Your task to perform on an android device: What's on my calendar tomorrow? Image 0: 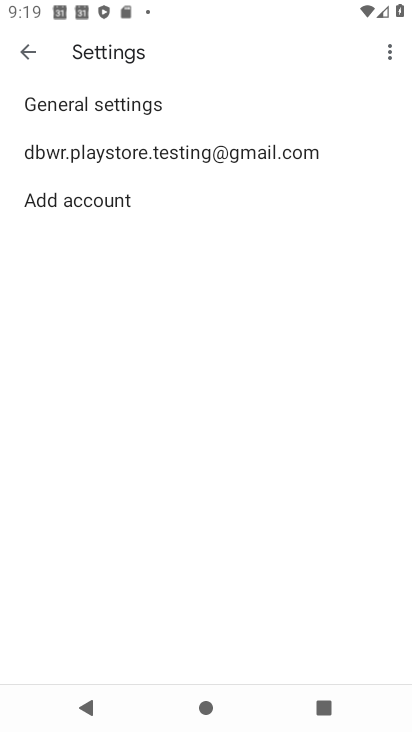
Step 0: press home button
Your task to perform on an android device: What's on my calendar tomorrow? Image 1: 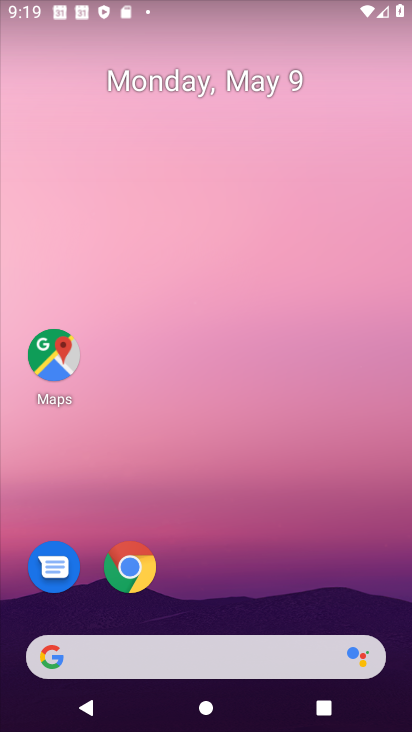
Step 1: drag from (212, 660) to (160, 54)
Your task to perform on an android device: What's on my calendar tomorrow? Image 2: 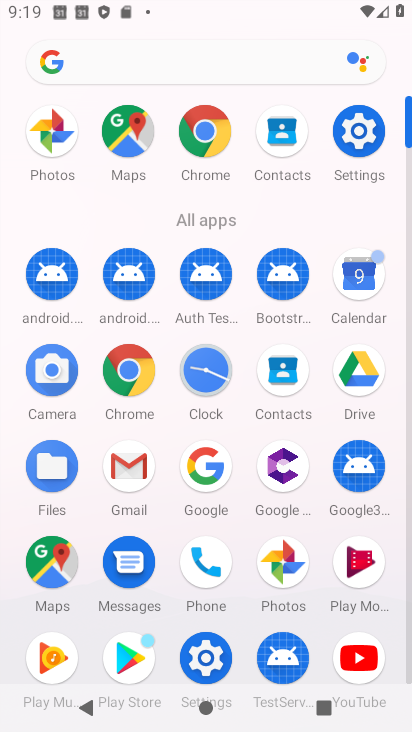
Step 2: click (368, 291)
Your task to perform on an android device: What's on my calendar tomorrow? Image 3: 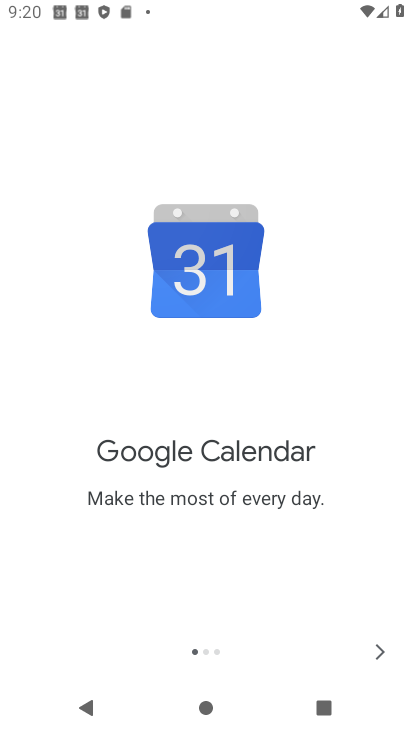
Step 3: click (387, 659)
Your task to perform on an android device: What's on my calendar tomorrow? Image 4: 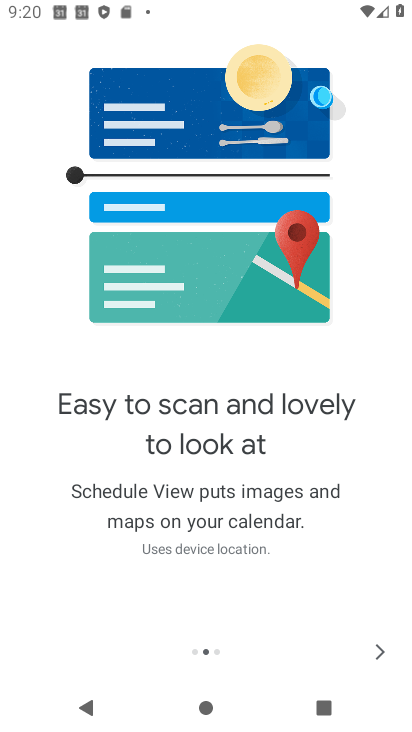
Step 4: click (374, 662)
Your task to perform on an android device: What's on my calendar tomorrow? Image 5: 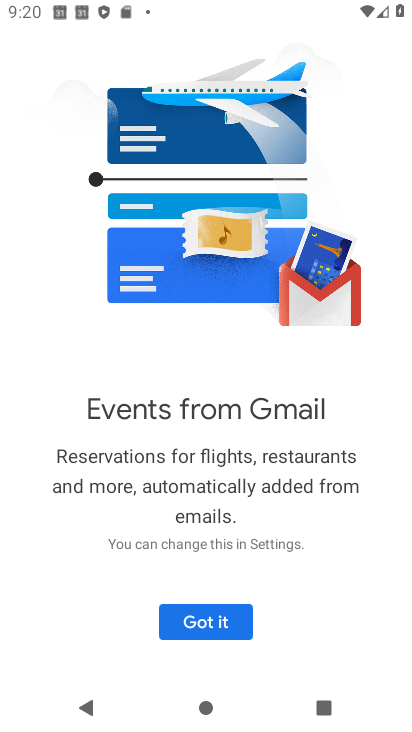
Step 5: click (225, 615)
Your task to perform on an android device: What's on my calendar tomorrow? Image 6: 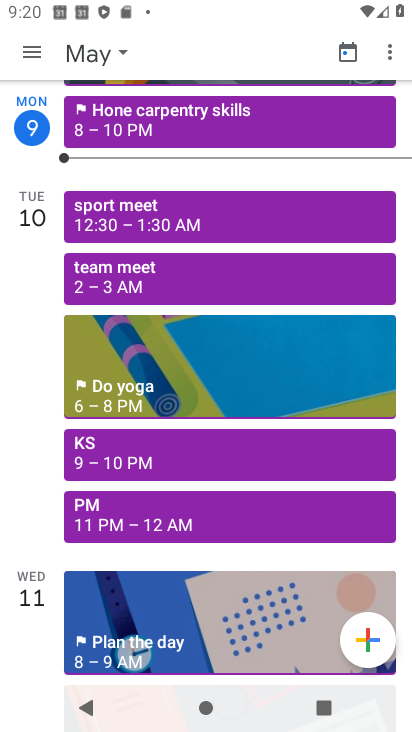
Step 6: task complete